Your task to perform on an android device: Open Google Chrome and click the shortcut for Amazon.com Image 0: 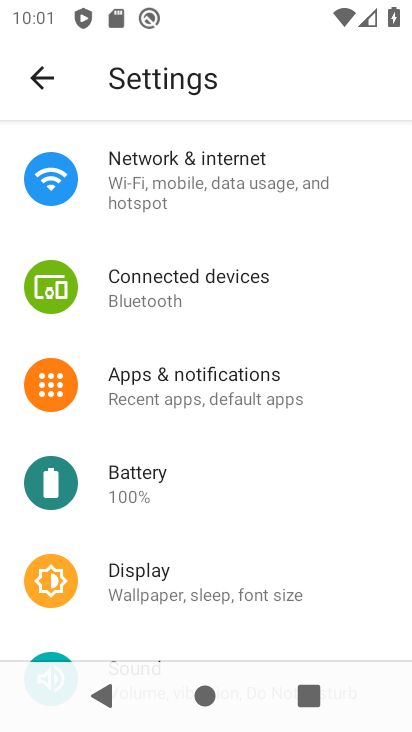
Step 0: press home button
Your task to perform on an android device: Open Google Chrome and click the shortcut for Amazon.com Image 1: 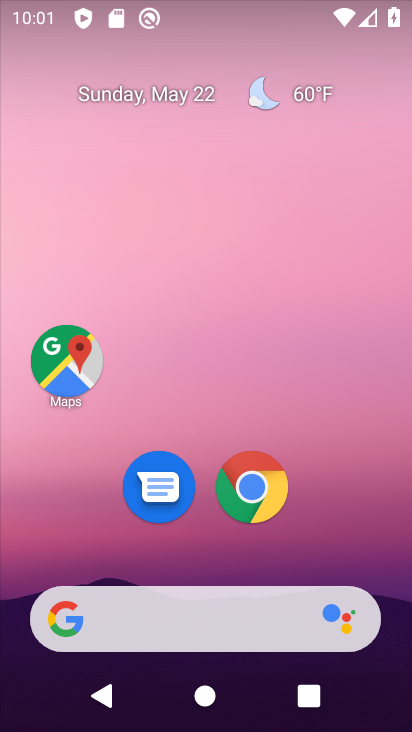
Step 1: click (275, 497)
Your task to perform on an android device: Open Google Chrome and click the shortcut for Amazon.com Image 2: 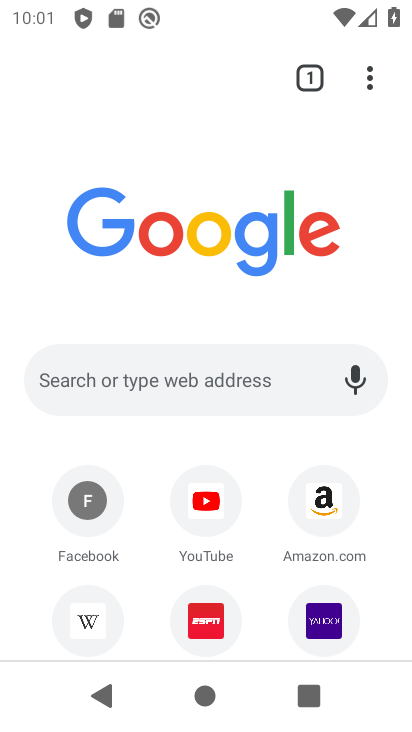
Step 2: click (310, 496)
Your task to perform on an android device: Open Google Chrome and click the shortcut for Amazon.com Image 3: 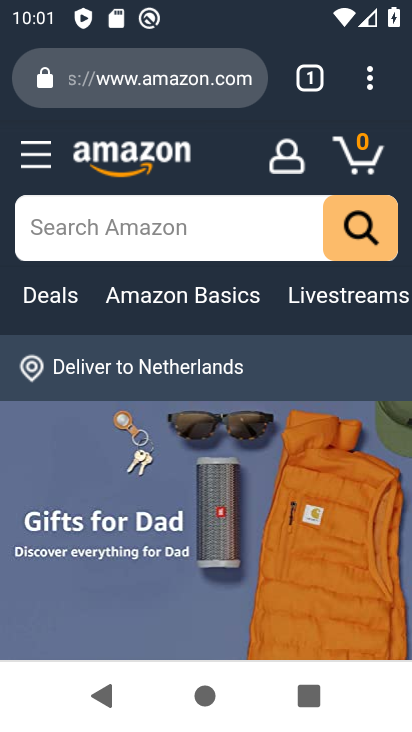
Step 3: task complete